Your task to perform on an android device: set the timer Image 0: 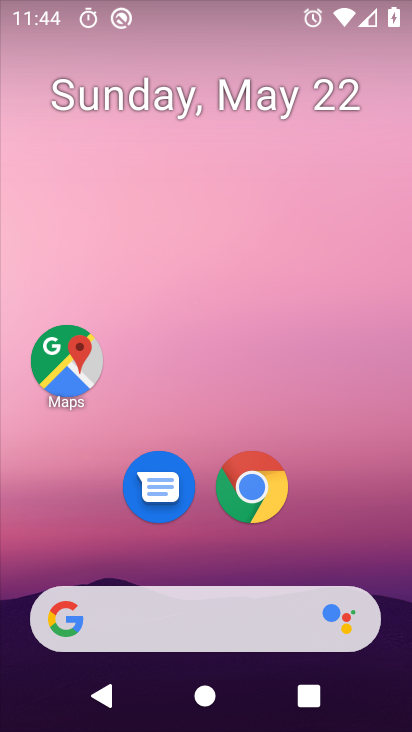
Step 0: drag from (327, 511) to (325, 208)
Your task to perform on an android device: set the timer Image 1: 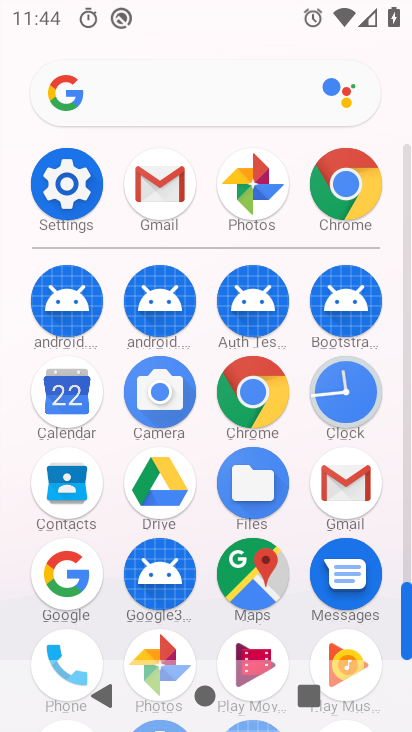
Step 1: click (346, 400)
Your task to perform on an android device: set the timer Image 2: 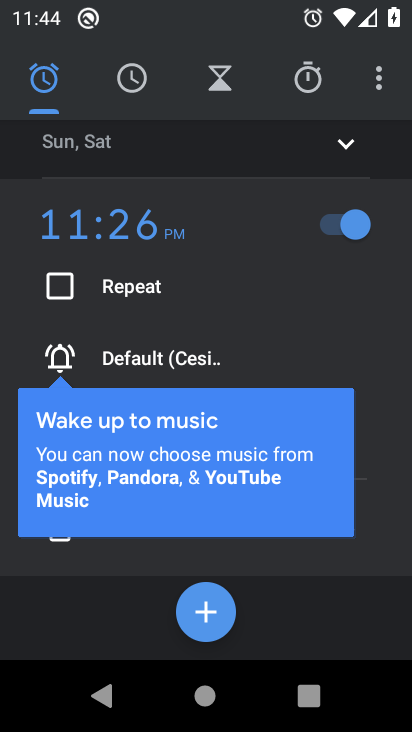
Step 2: click (225, 95)
Your task to perform on an android device: set the timer Image 3: 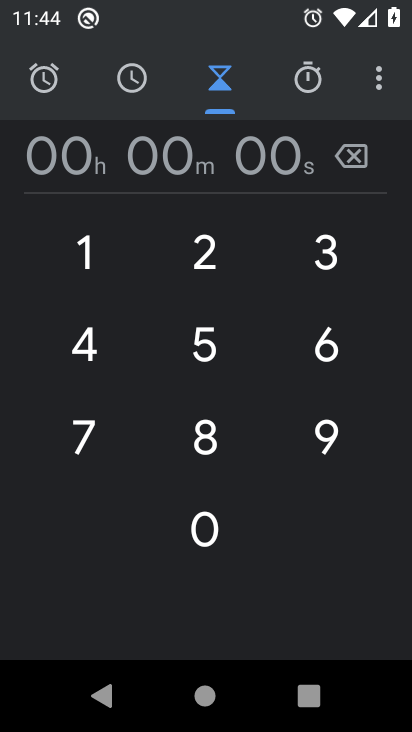
Step 3: click (97, 261)
Your task to perform on an android device: set the timer Image 4: 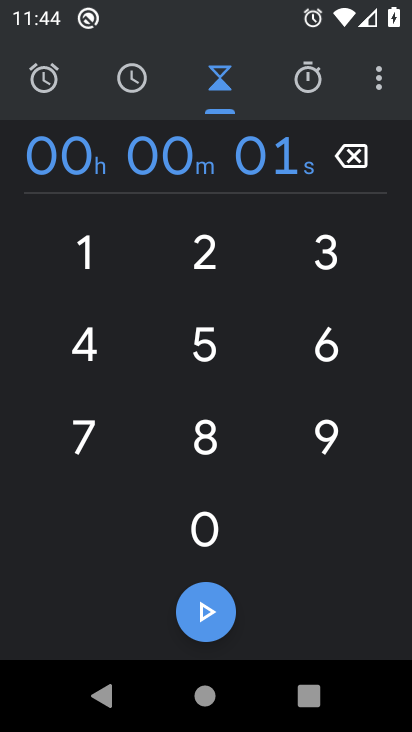
Step 4: click (181, 348)
Your task to perform on an android device: set the timer Image 5: 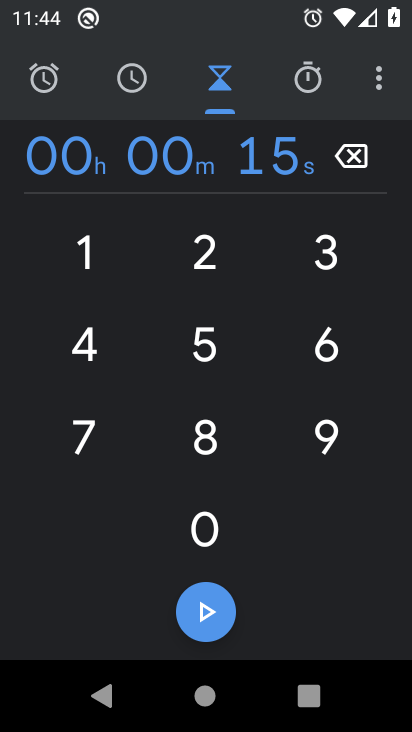
Step 5: click (221, 607)
Your task to perform on an android device: set the timer Image 6: 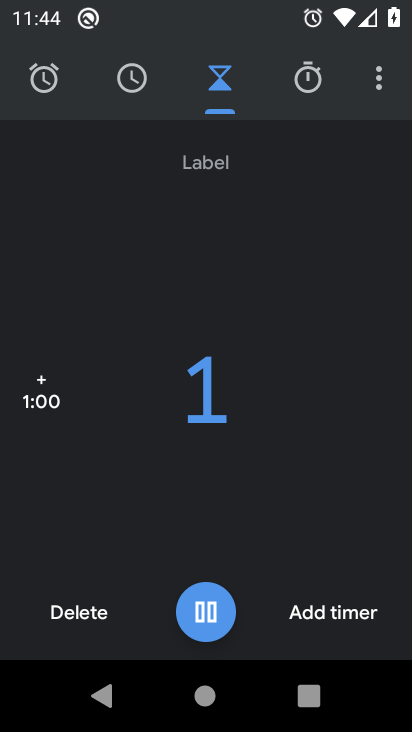
Step 6: click (209, 603)
Your task to perform on an android device: set the timer Image 7: 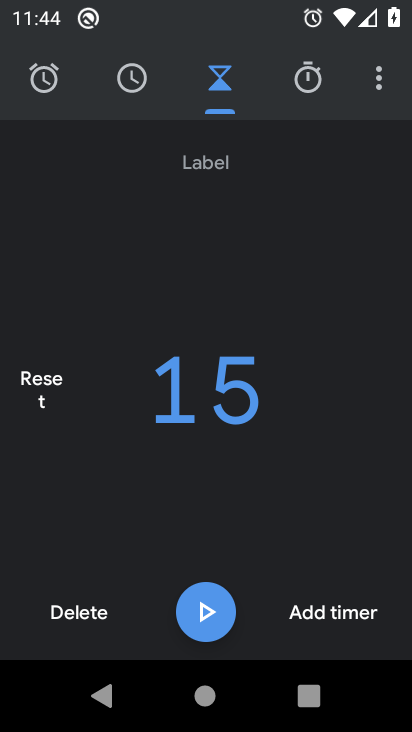
Step 7: task complete